Your task to perform on an android device: Open the web browser Image 0: 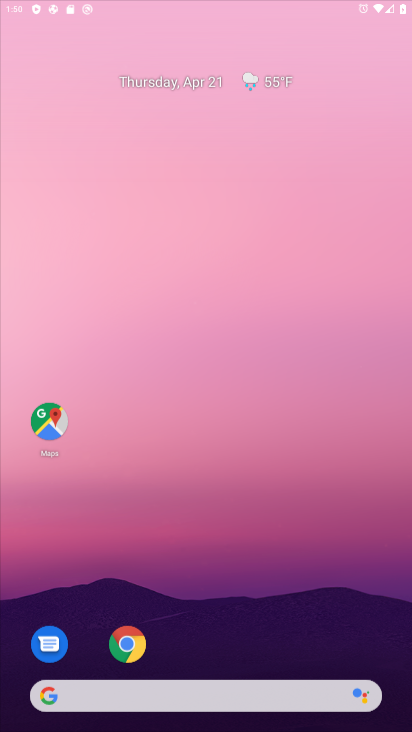
Step 0: drag from (228, 305) to (196, 90)
Your task to perform on an android device: Open the web browser Image 1: 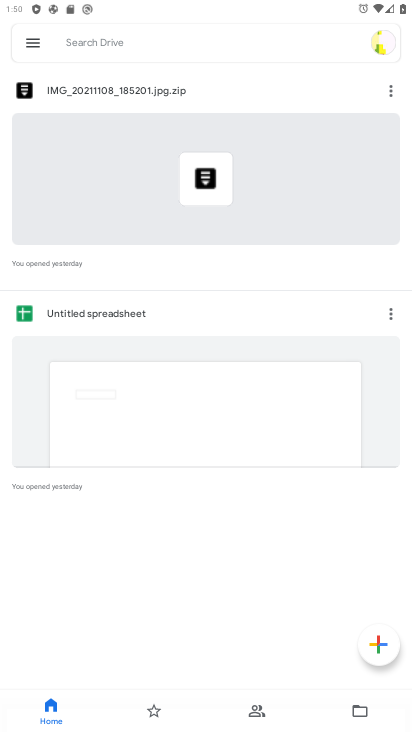
Step 1: press home button
Your task to perform on an android device: Open the web browser Image 2: 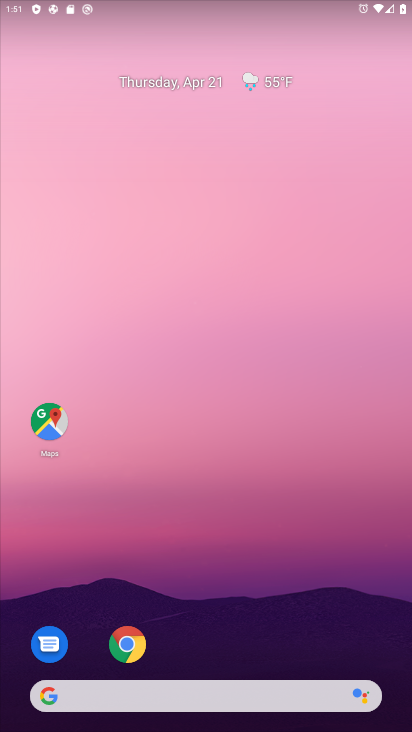
Step 2: click (124, 646)
Your task to perform on an android device: Open the web browser Image 3: 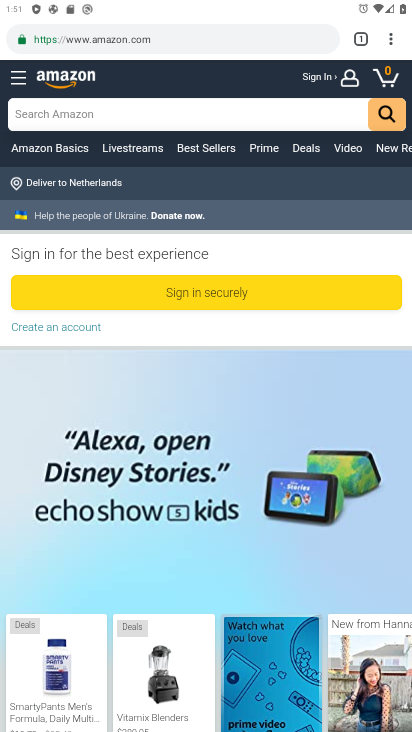
Step 3: task complete